Your task to perform on an android device: choose inbox layout in the gmail app Image 0: 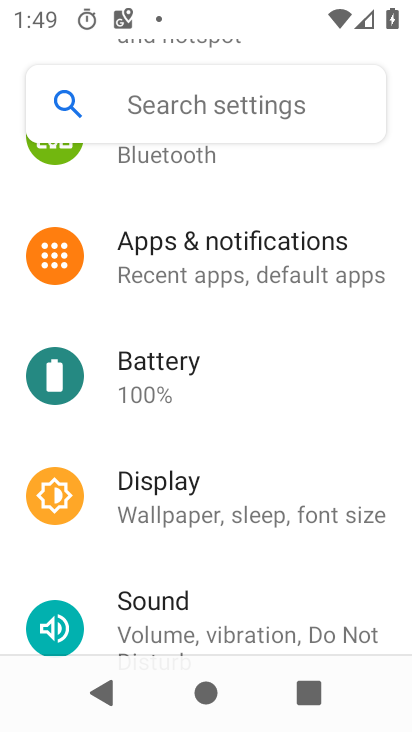
Step 0: press home button
Your task to perform on an android device: choose inbox layout in the gmail app Image 1: 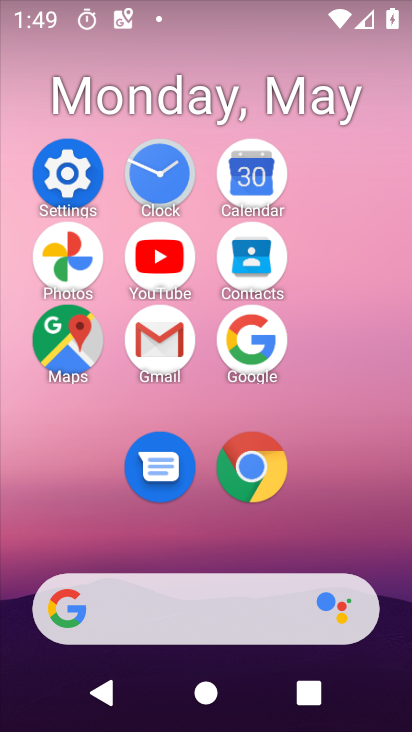
Step 1: click (164, 339)
Your task to perform on an android device: choose inbox layout in the gmail app Image 2: 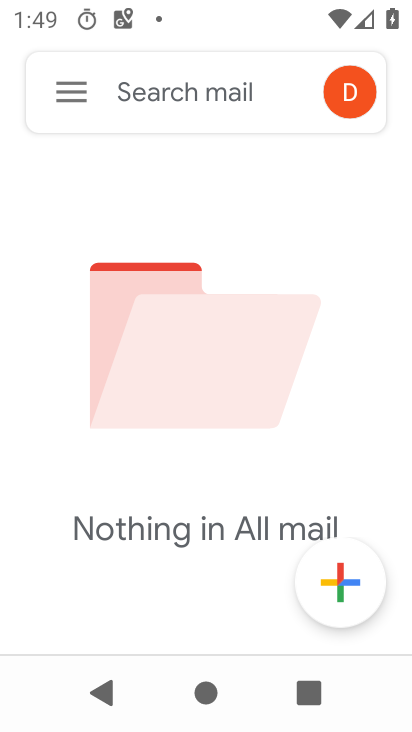
Step 2: click (78, 116)
Your task to perform on an android device: choose inbox layout in the gmail app Image 3: 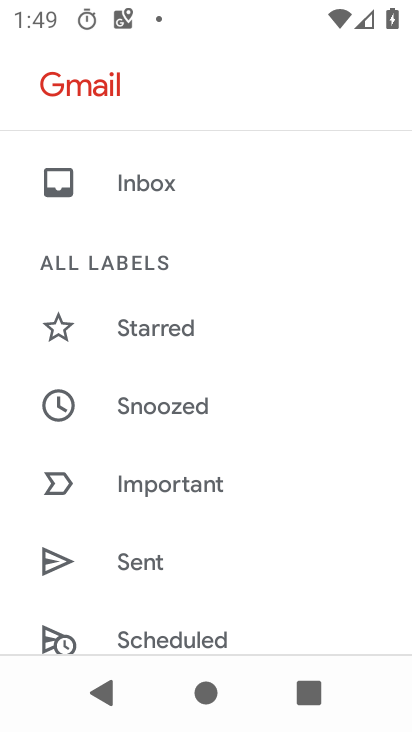
Step 3: drag from (199, 578) to (242, 46)
Your task to perform on an android device: choose inbox layout in the gmail app Image 4: 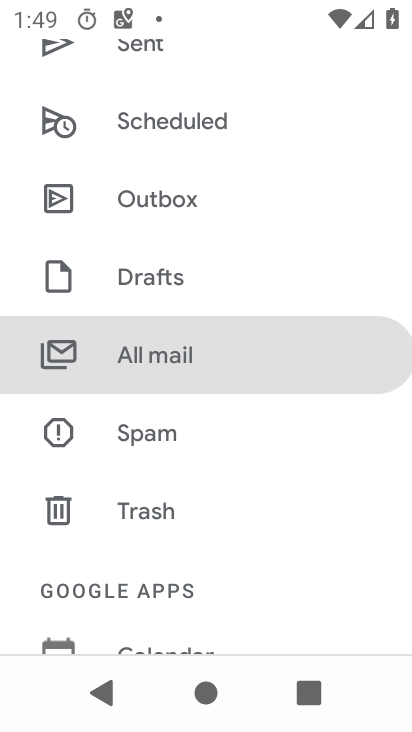
Step 4: drag from (206, 594) to (262, 213)
Your task to perform on an android device: choose inbox layout in the gmail app Image 5: 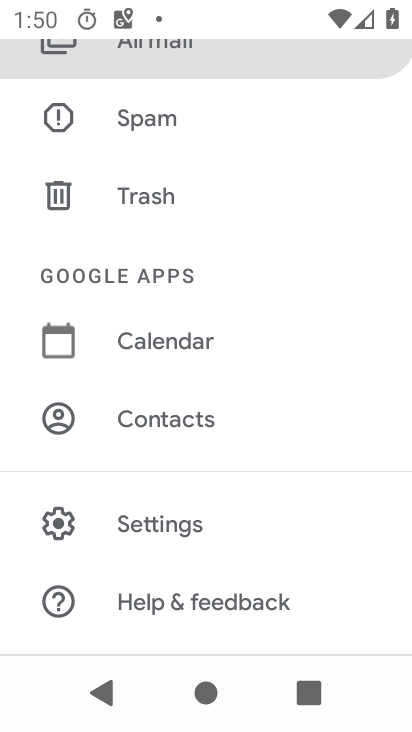
Step 5: click (226, 532)
Your task to perform on an android device: choose inbox layout in the gmail app Image 6: 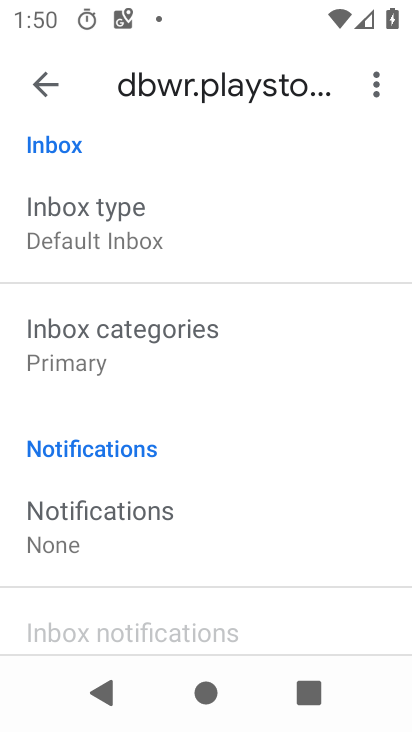
Step 6: click (161, 239)
Your task to perform on an android device: choose inbox layout in the gmail app Image 7: 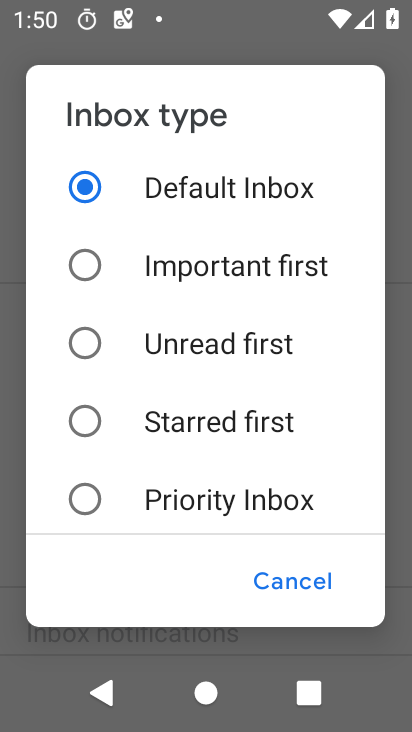
Step 7: task complete